Your task to perform on an android device: change alarm snooze length Image 0: 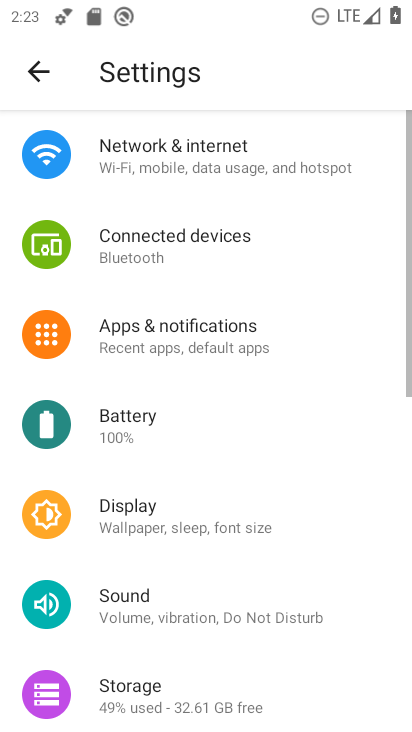
Step 0: press home button
Your task to perform on an android device: change alarm snooze length Image 1: 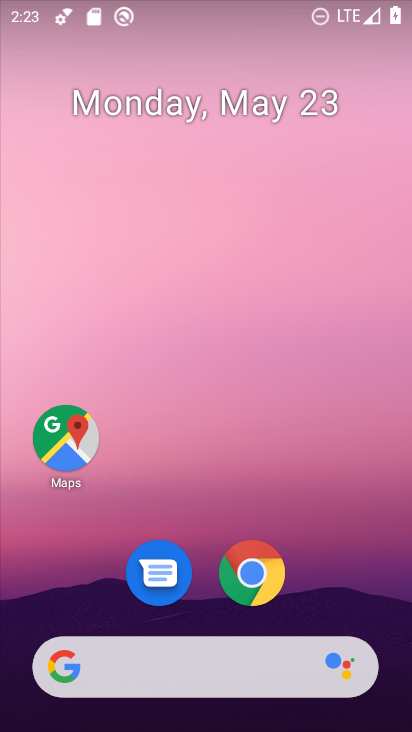
Step 1: drag from (297, 367) to (285, 155)
Your task to perform on an android device: change alarm snooze length Image 2: 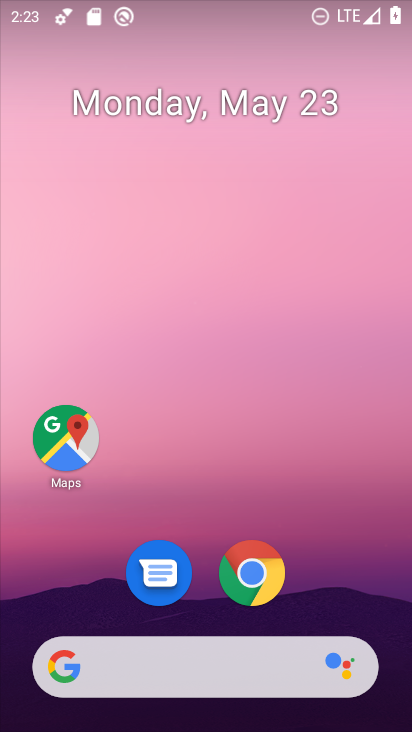
Step 2: drag from (319, 553) to (322, 98)
Your task to perform on an android device: change alarm snooze length Image 3: 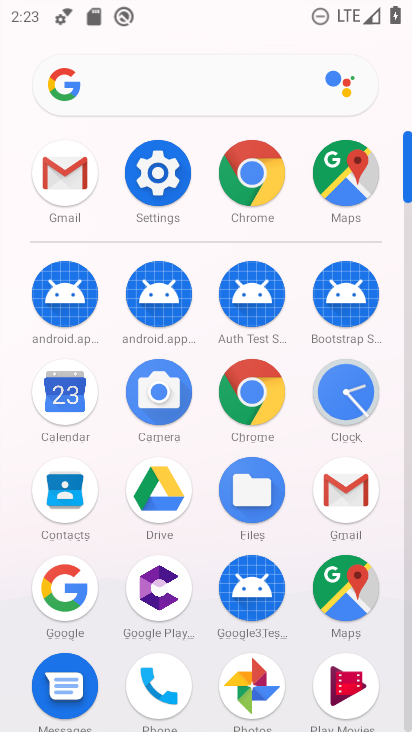
Step 3: click (345, 376)
Your task to perform on an android device: change alarm snooze length Image 4: 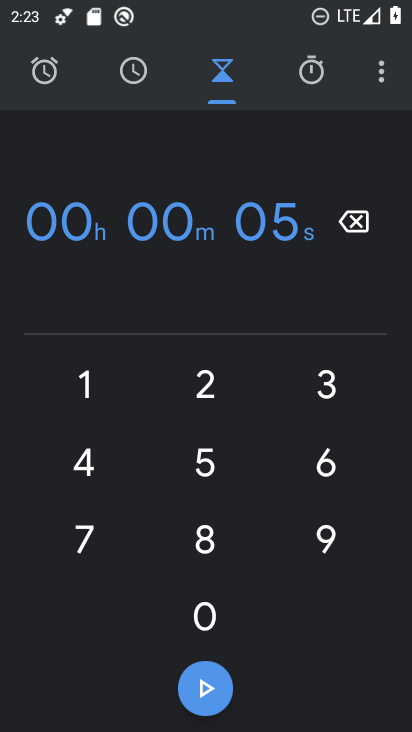
Step 4: drag from (384, 73) to (291, 137)
Your task to perform on an android device: change alarm snooze length Image 5: 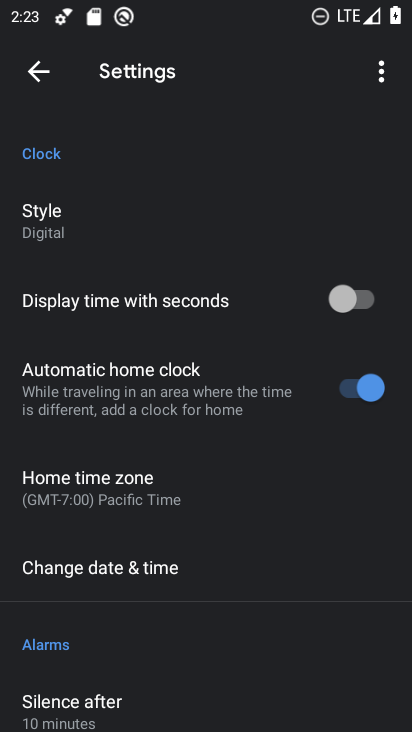
Step 5: drag from (221, 622) to (210, 243)
Your task to perform on an android device: change alarm snooze length Image 6: 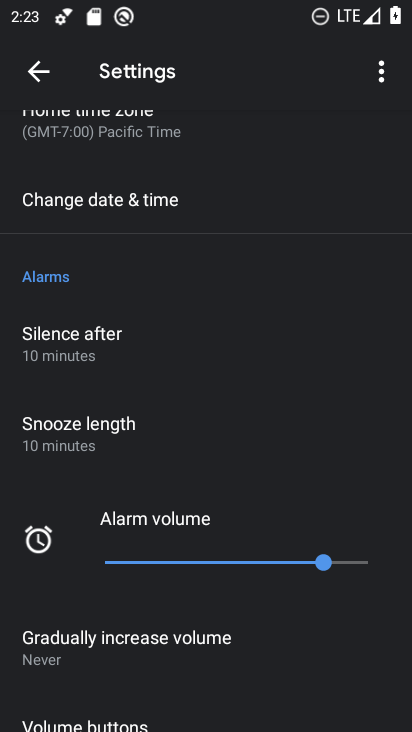
Step 6: click (64, 418)
Your task to perform on an android device: change alarm snooze length Image 7: 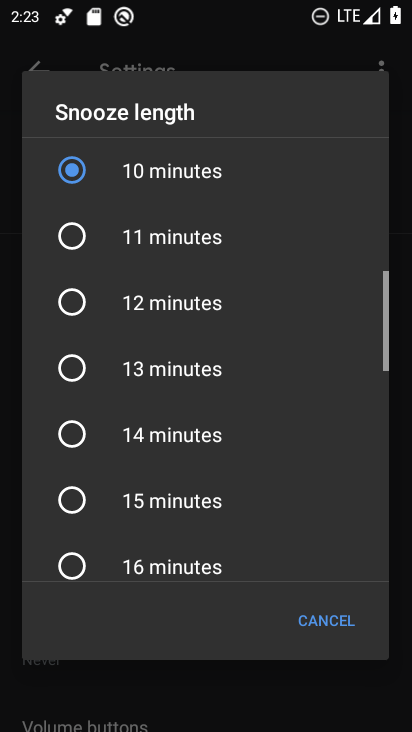
Step 7: click (135, 224)
Your task to perform on an android device: change alarm snooze length Image 8: 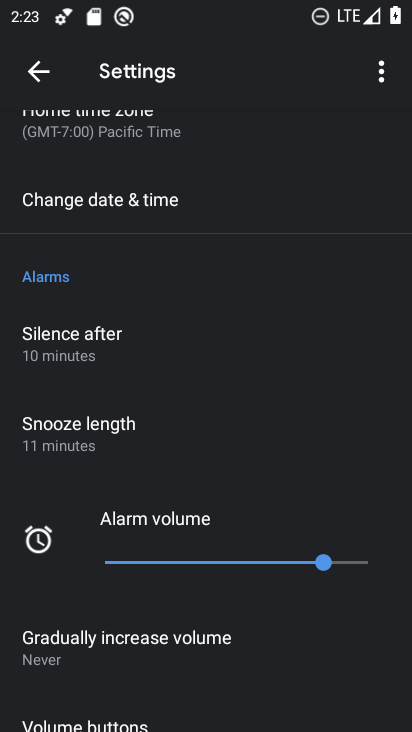
Step 8: task complete